Your task to perform on an android device: Check the news Image 0: 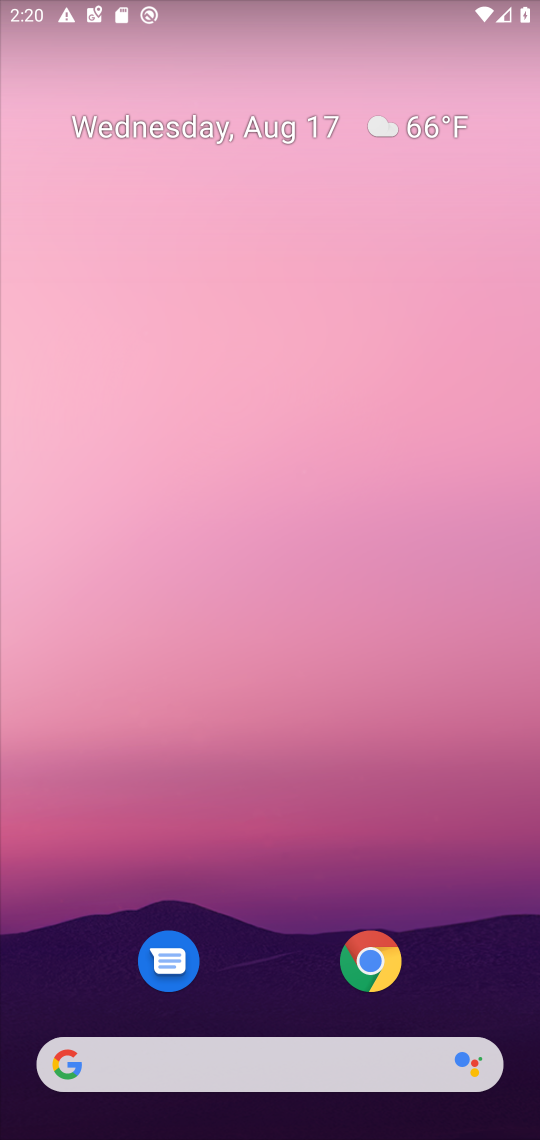
Step 0: drag from (311, 978) to (524, 328)
Your task to perform on an android device: Check the news Image 1: 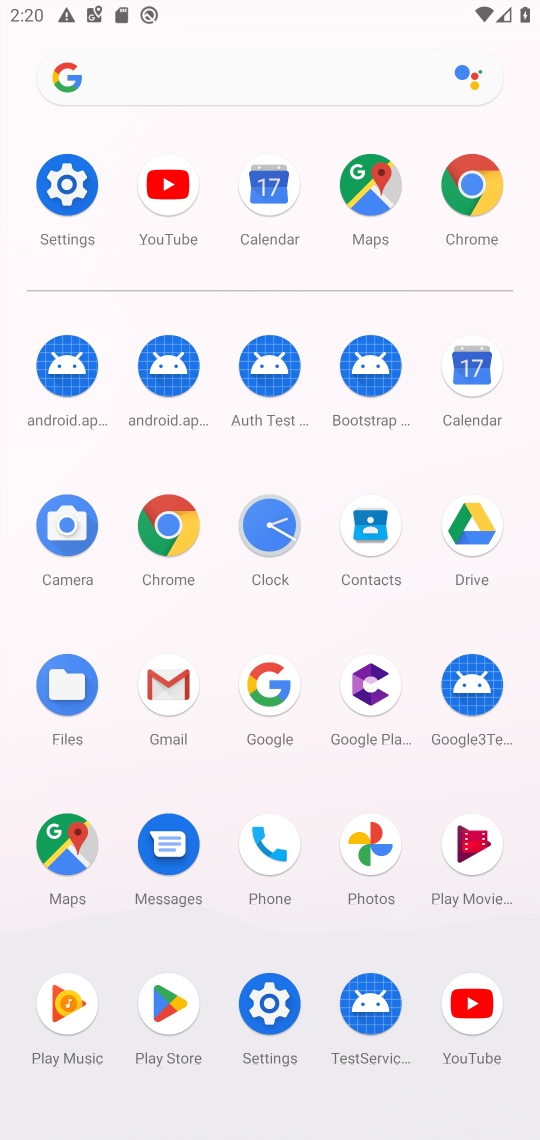
Step 1: click (273, 758)
Your task to perform on an android device: Check the news Image 2: 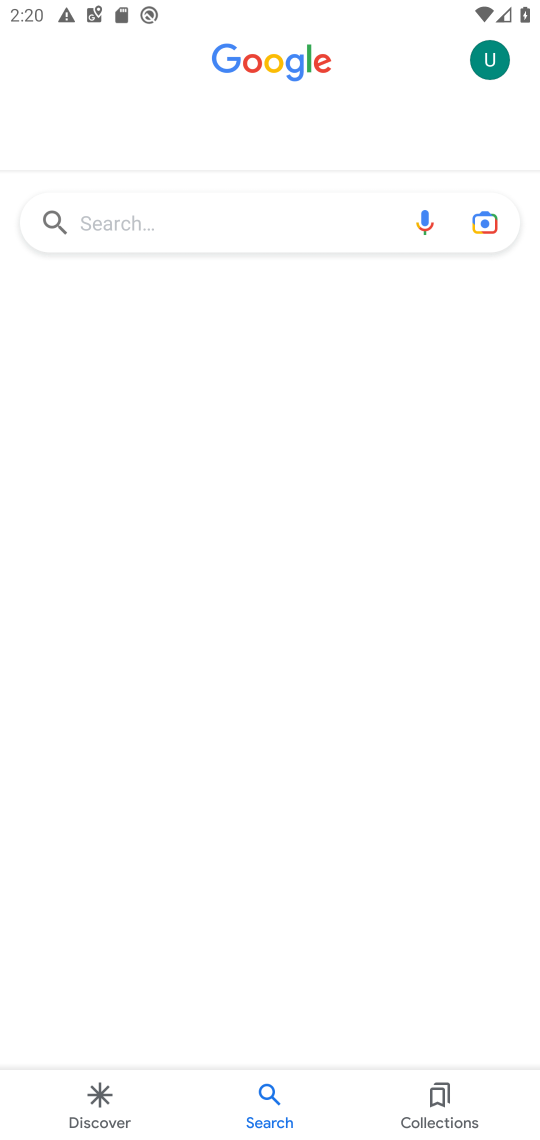
Step 2: click (253, 226)
Your task to perform on an android device: Check the news Image 3: 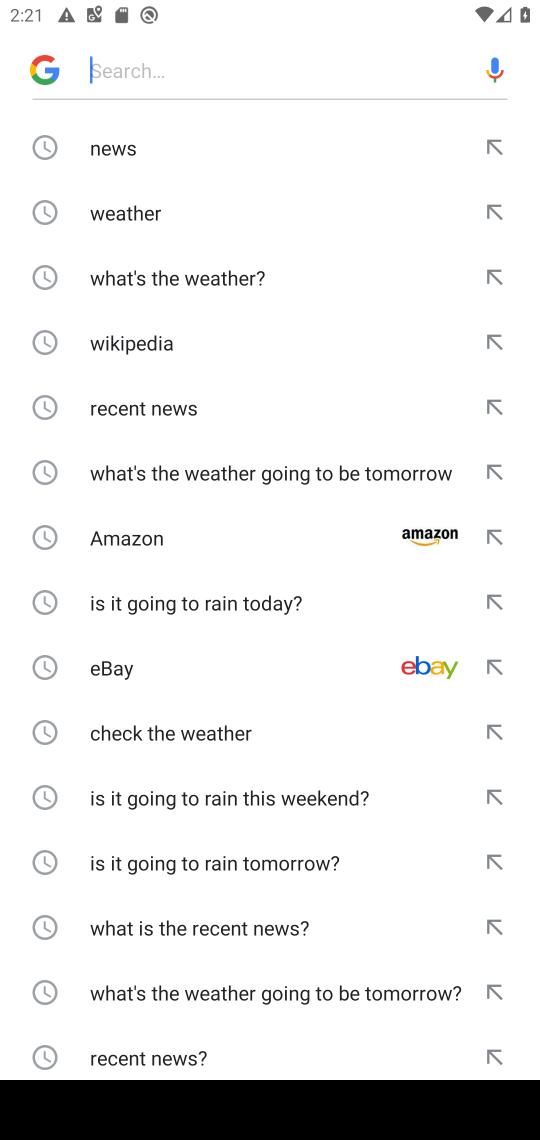
Step 3: click (134, 156)
Your task to perform on an android device: Check the news Image 4: 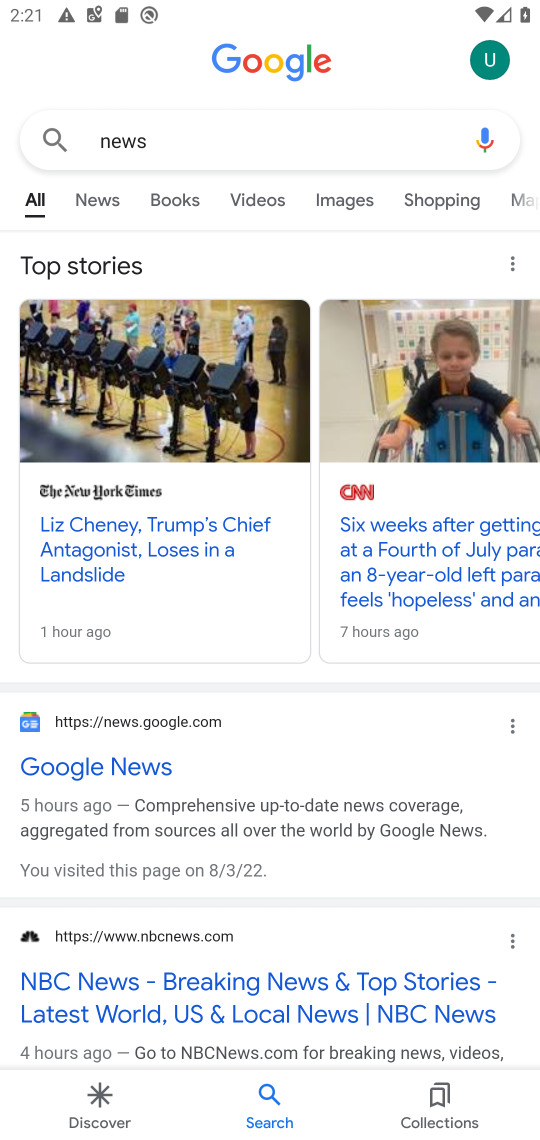
Step 4: task complete